Your task to perform on an android device: Open Maps and search for coffee Image 0: 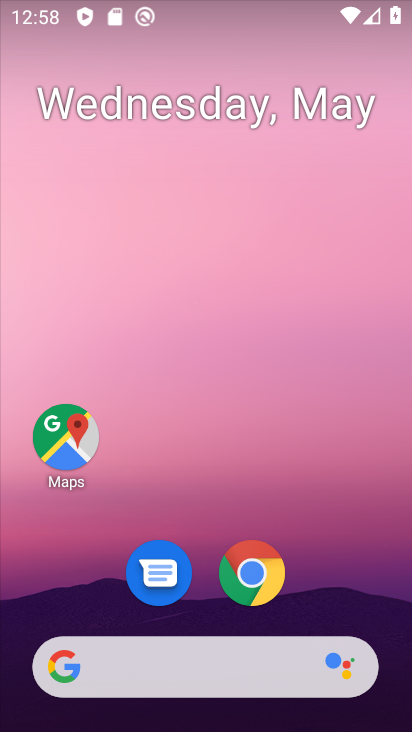
Step 0: click (66, 422)
Your task to perform on an android device: Open Maps and search for coffee Image 1: 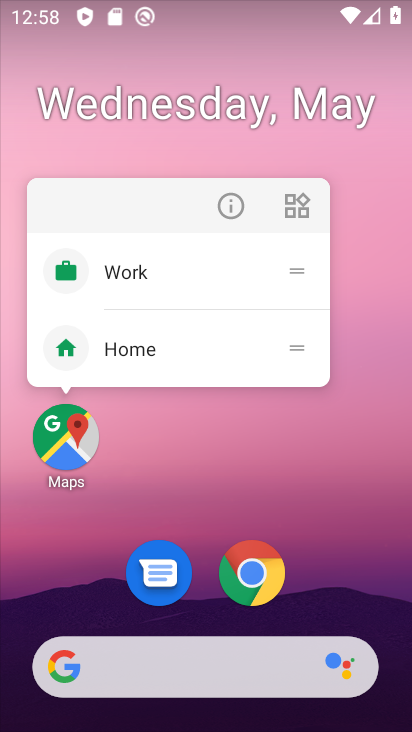
Step 1: click (63, 444)
Your task to perform on an android device: Open Maps and search for coffee Image 2: 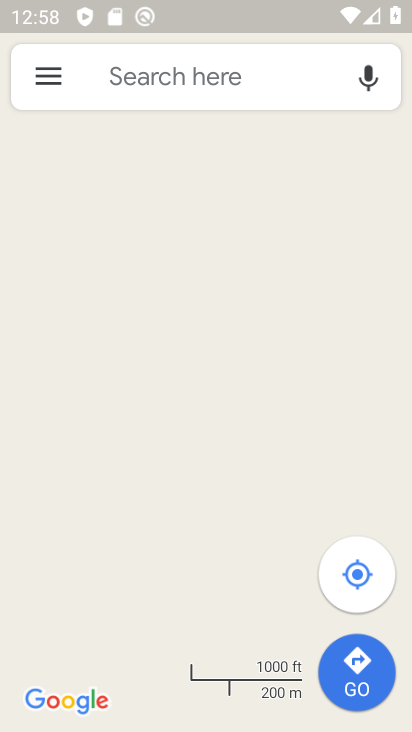
Step 2: click (175, 85)
Your task to perform on an android device: Open Maps and search for coffee Image 3: 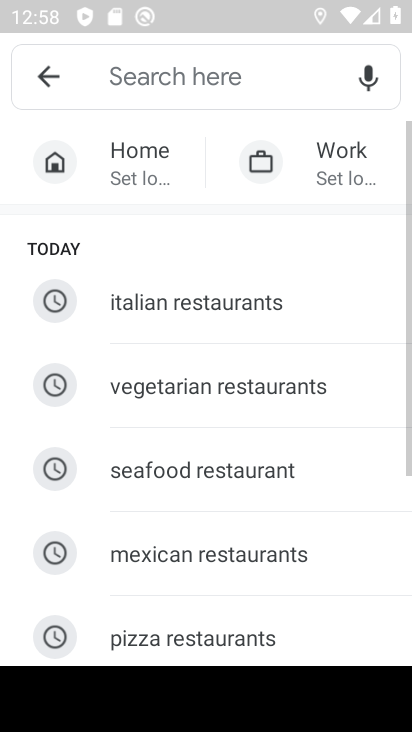
Step 3: type "Coffee "
Your task to perform on an android device: Open Maps and search for coffee Image 4: 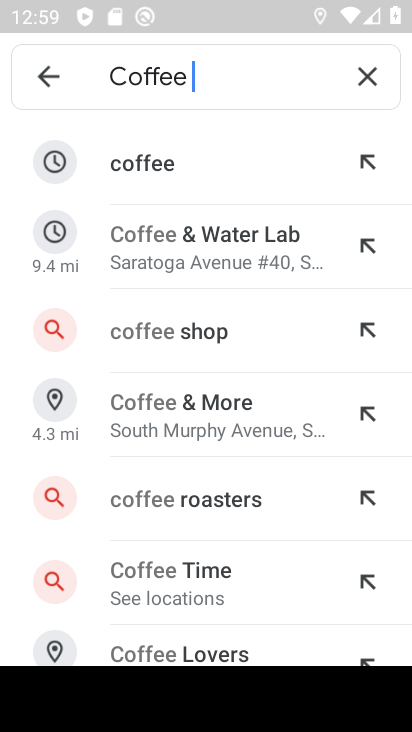
Step 4: click (169, 175)
Your task to perform on an android device: Open Maps and search for coffee Image 5: 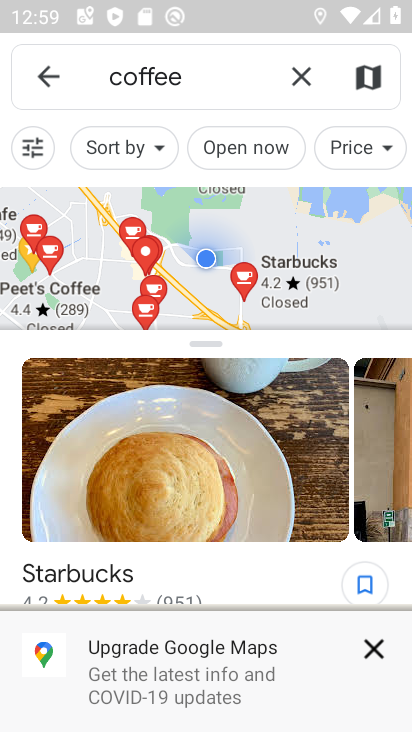
Step 5: click (382, 652)
Your task to perform on an android device: Open Maps and search for coffee Image 6: 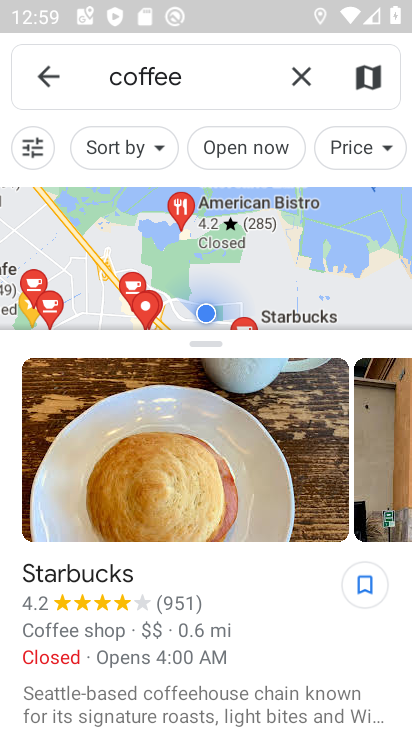
Step 6: task complete